Your task to perform on an android device: Go to Yahoo.com Image 0: 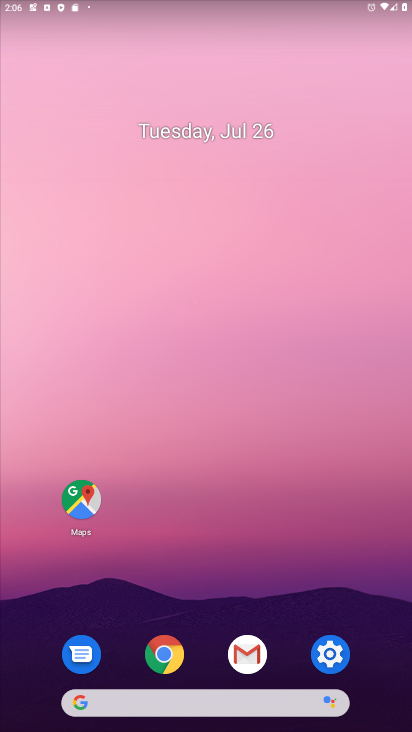
Step 0: click (173, 657)
Your task to perform on an android device: Go to Yahoo.com Image 1: 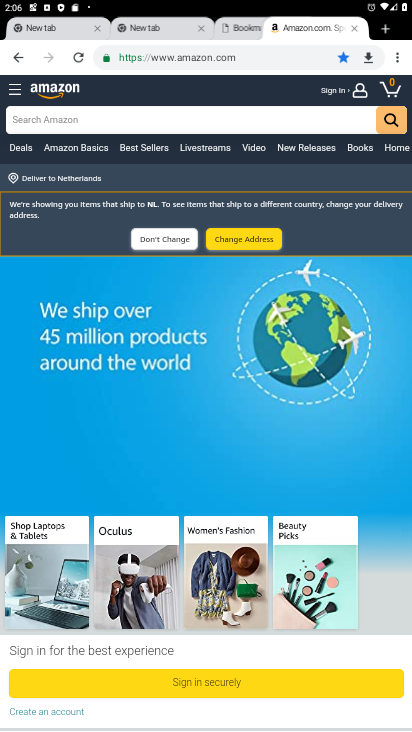
Step 1: click (385, 26)
Your task to perform on an android device: Go to Yahoo.com Image 2: 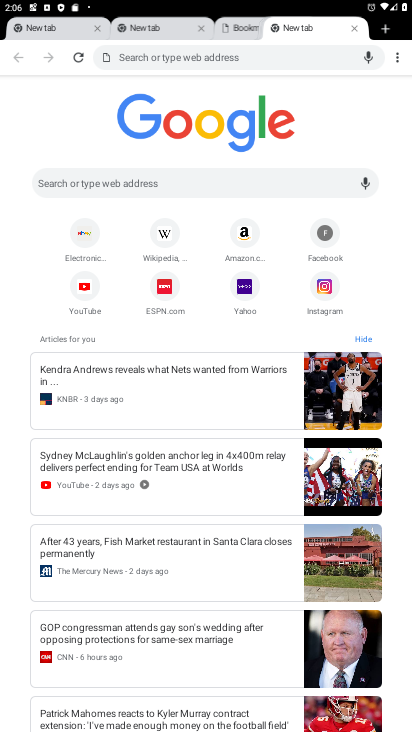
Step 2: click (234, 289)
Your task to perform on an android device: Go to Yahoo.com Image 3: 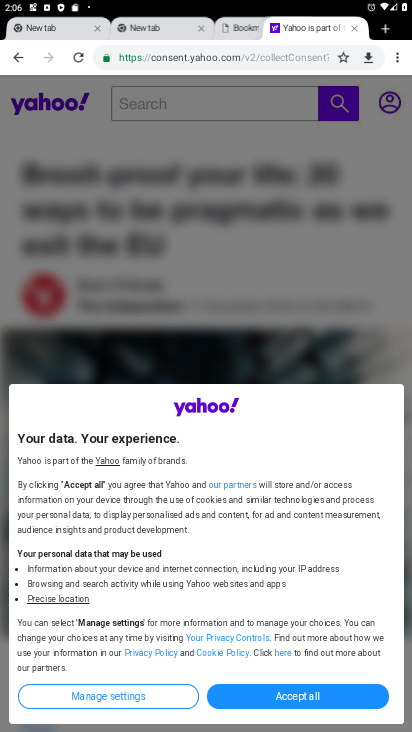
Step 3: click (274, 695)
Your task to perform on an android device: Go to Yahoo.com Image 4: 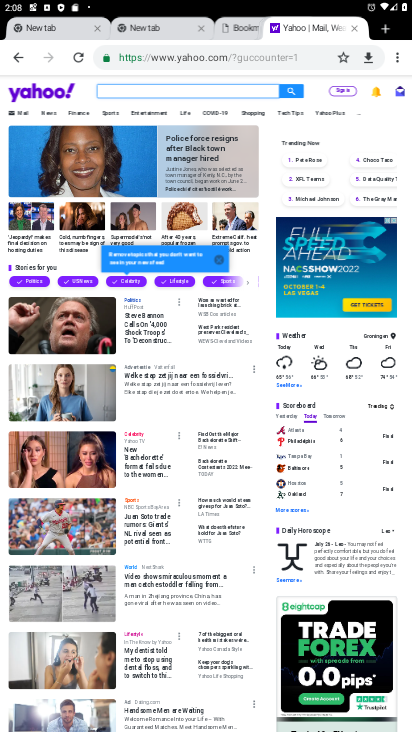
Step 4: task complete